Your task to perform on an android device: View the shopping cart on walmart. Add usb-a to usb-b to the cart on walmart Image 0: 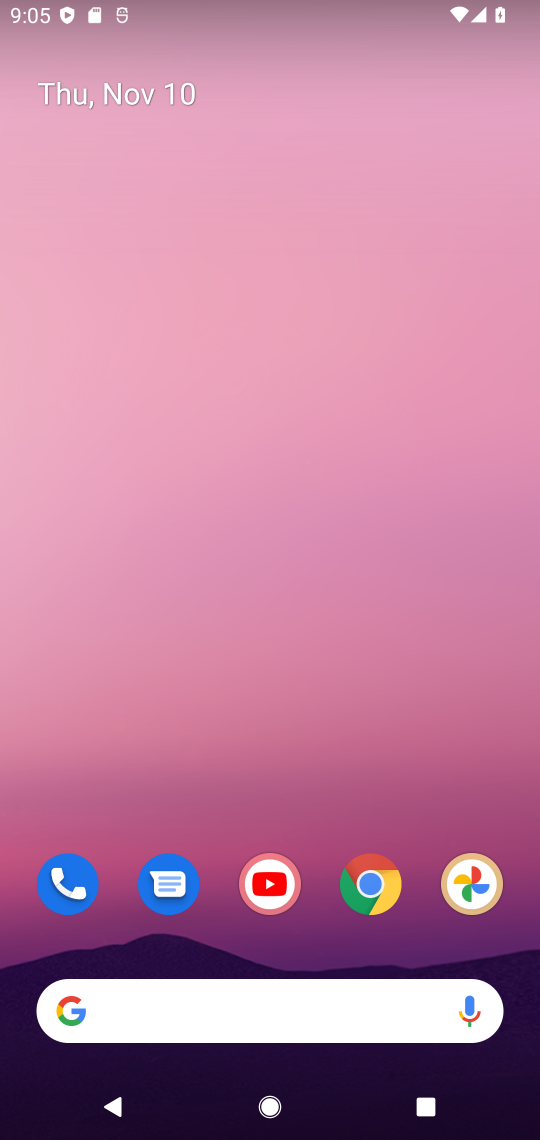
Step 0: drag from (250, 872) to (319, 112)
Your task to perform on an android device: View the shopping cart on walmart. Add usb-a to usb-b to the cart on walmart Image 1: 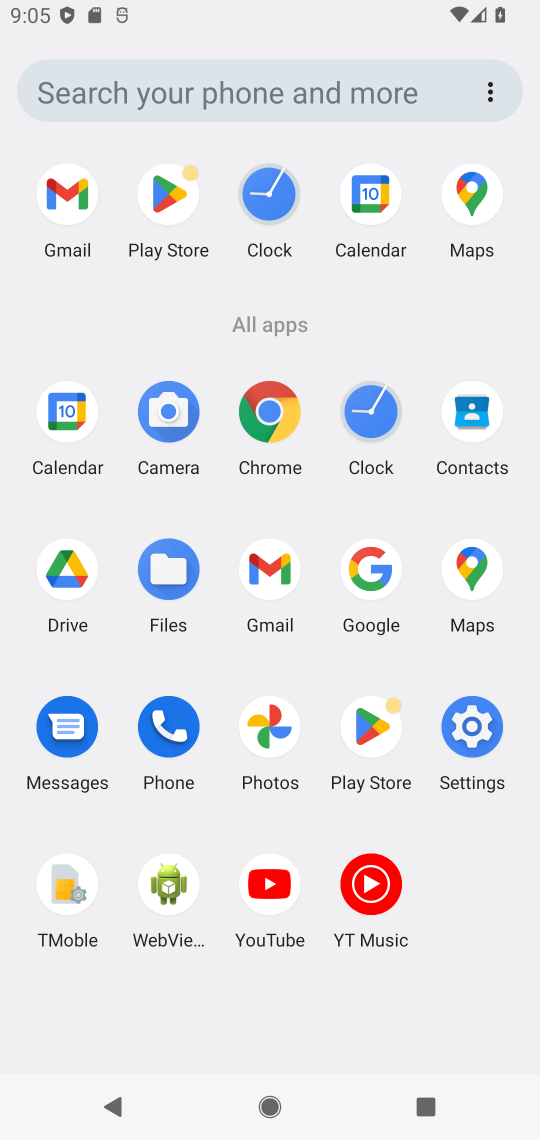
Step 1: click (360, 578)
Your task to perform on an android device: View the shopping cart on walmart. Add usb-a to usb-b to the cart on walmart Image 2: 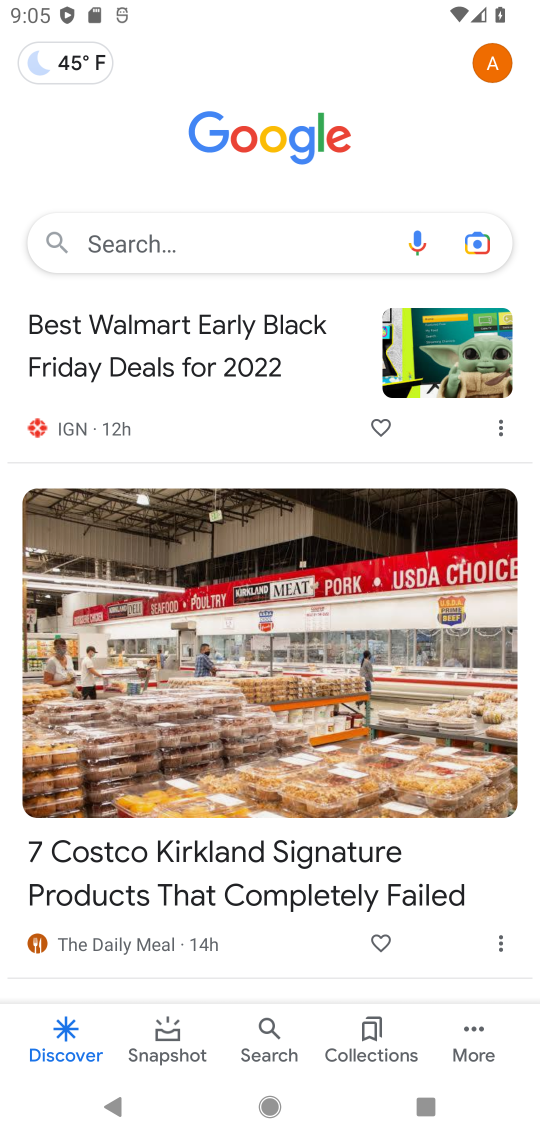
Step 2: click (360, 578)
Your task to perform on an android device: View the shopping cart on walmart. Add usb-a to usb-b to the cart on walmart Image 3: 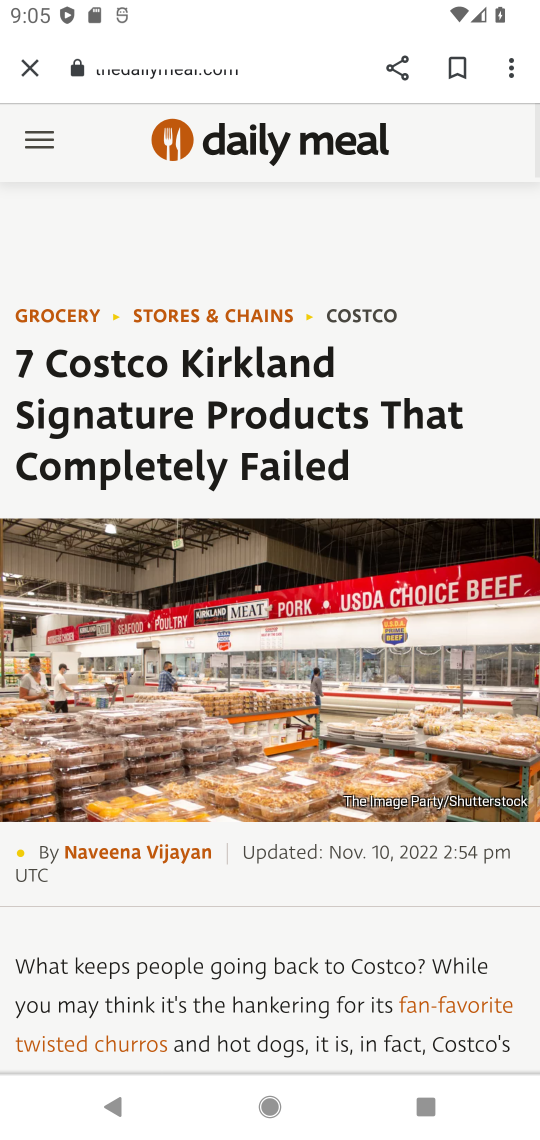
Step 3: click (249, 234)
Your task to perform on an android device: View the shopping cart on walmart. Add usb-a to usb-b to the cart on walmart Image 4: 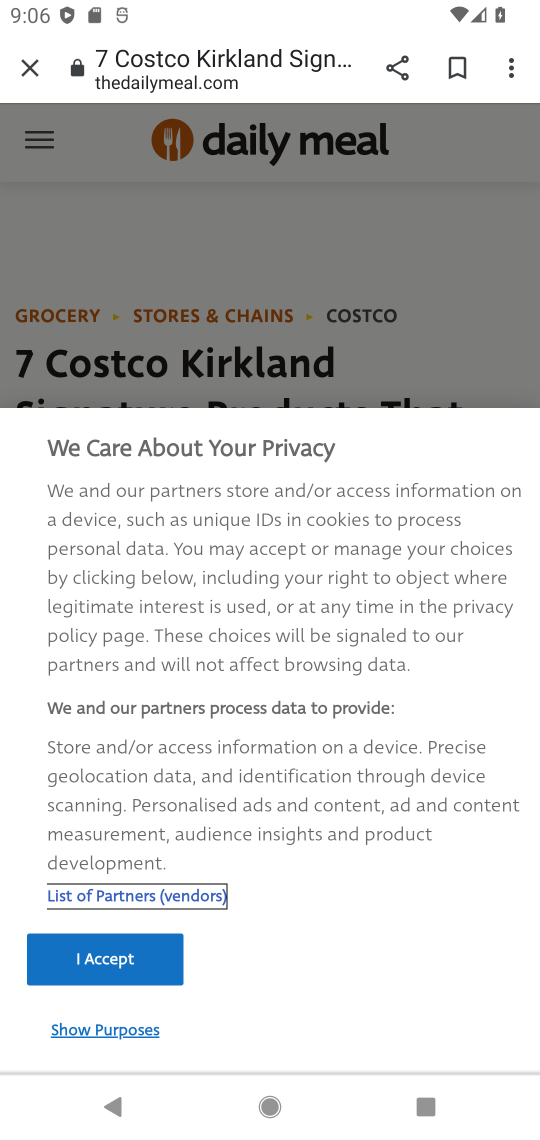
Step 4: press home button
Your task to perform on an android device: View the shopping cart on walmart. Add usb-a to usb-b to the cart on walmart Image 5: 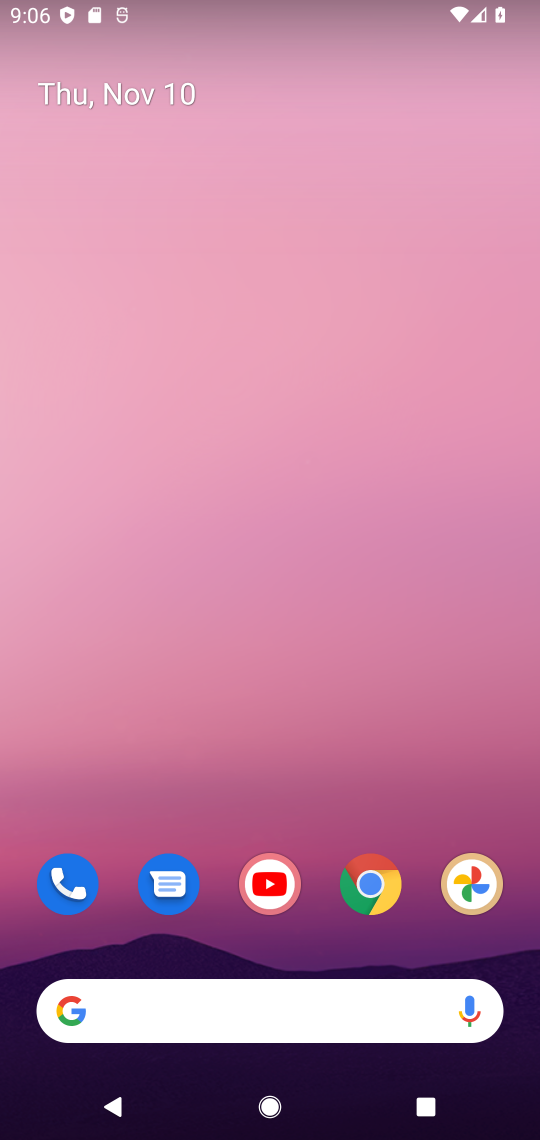
Step 5: click (242, 995)
Your task to perform on an android device: View the shopping cart on walmart. Add usb-a to usb-b to the cart on walmart Image 6: 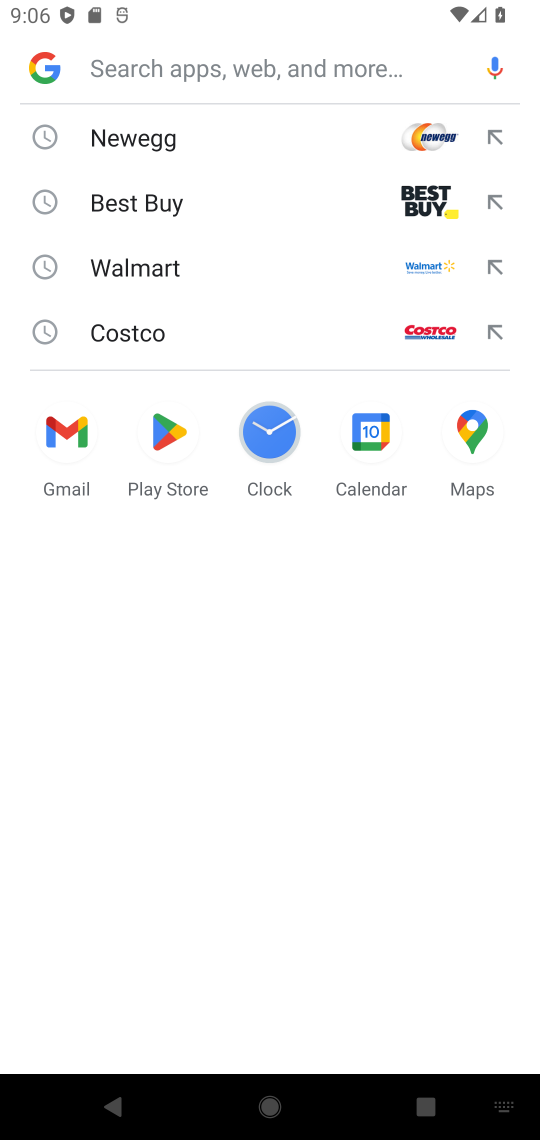
Step 6: click (165, 277)
Your task to perform on an android device: View the shopping cart on walmart. Add usb-a to usb-b to the cart on walmart Image 7: 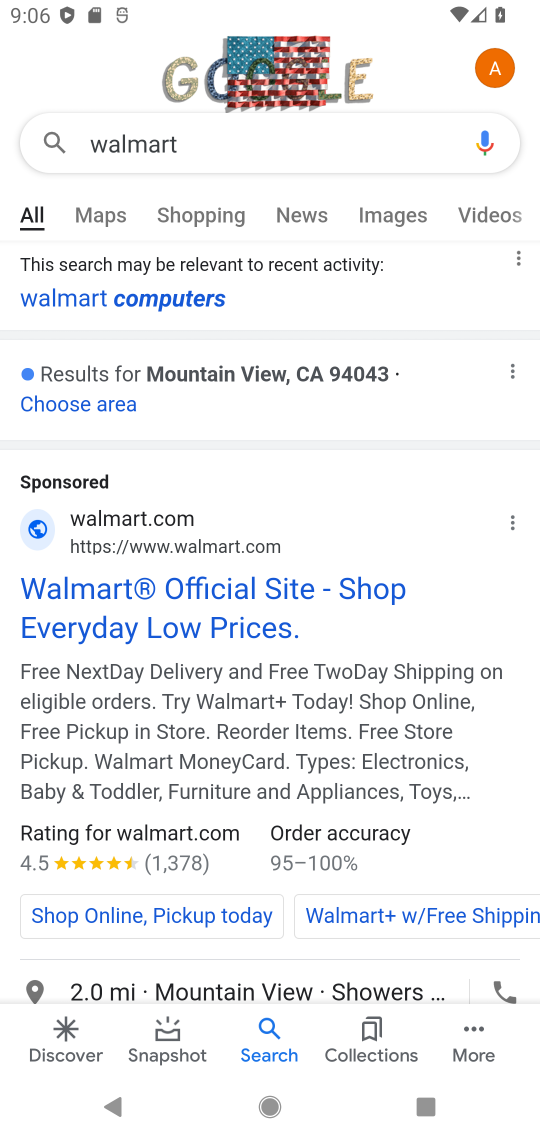
Step 7: click (91, 628)
Your task to perform on an android device: View the shopping cart on walmart. Add usb-a to usb-b to the cart on walmart Image 8: 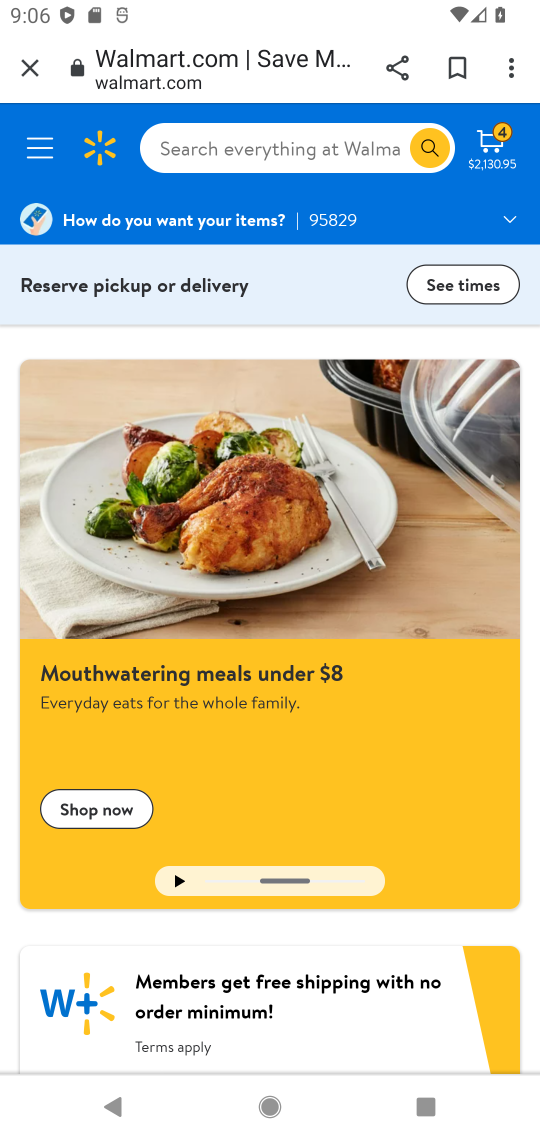
Step 8: click (261, 149)
Your task to perform on an android device: View the shopping cart on walmart. Add usb-a to usb-b to the cart on walmart Image 9: 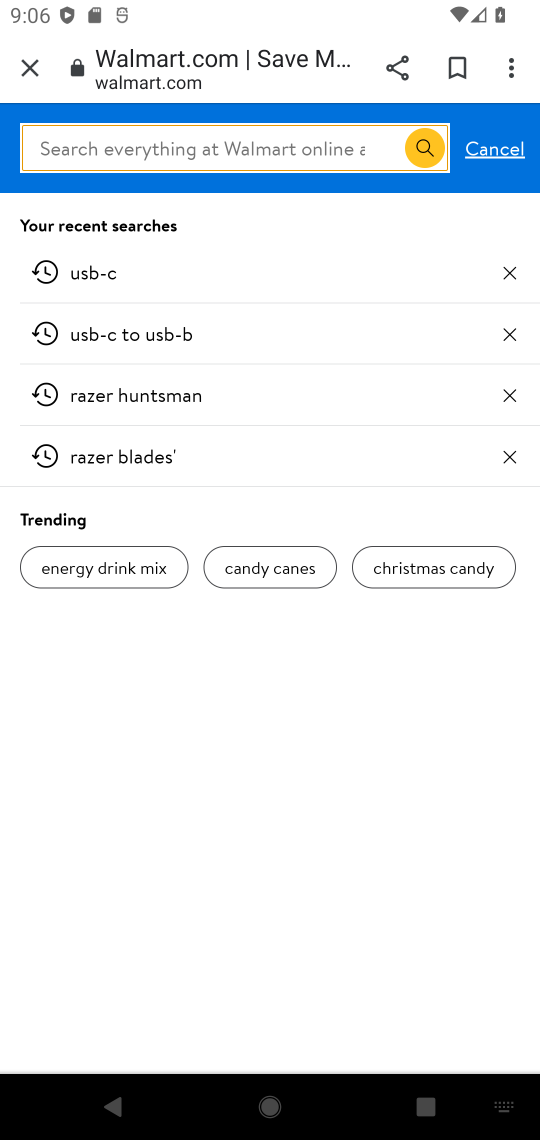
Step 9: type "usb-a to usb-b"
Your task to perform on an android device: View the shopping cart on walmart. Add usb-a to usb-b to the cart on walmart Image 10: 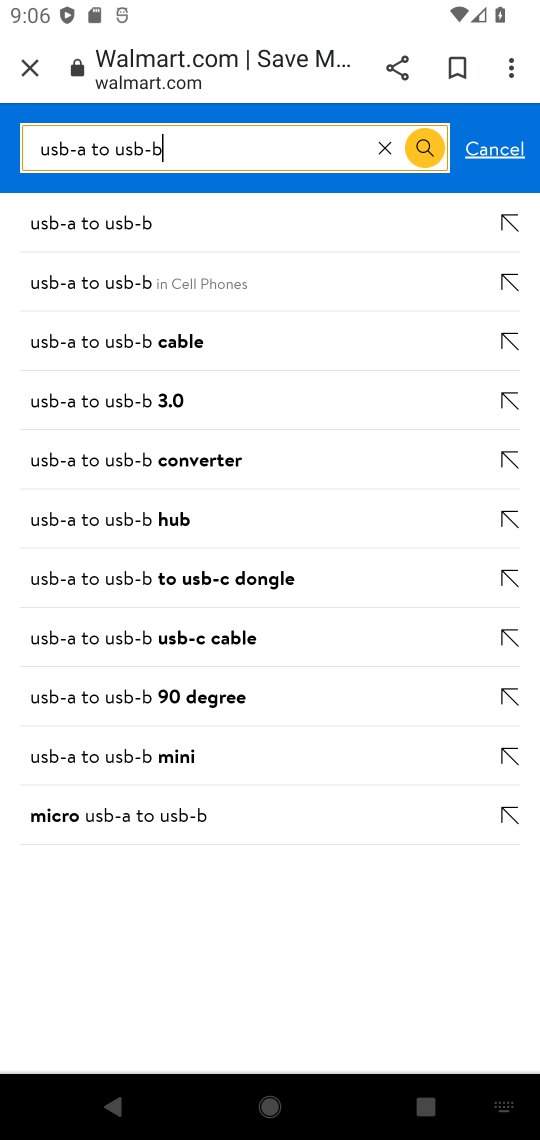
Step 10: click (117, 220)
Your task to perform on an android device: View the shopping cart on walmart. Add usb-a to usb-b to the cart on walmart Image 11: 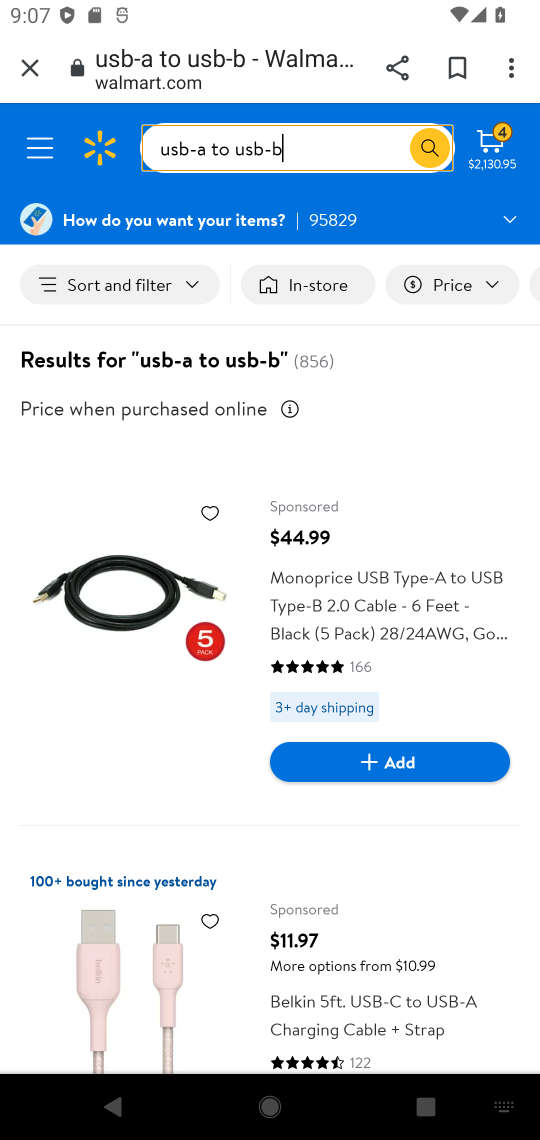
Step 11: click (377, 777)
Your task to perform on an android device: View the shopping cart on walmart. Add usb-a to usb-b to the cart on walmart Image 12: 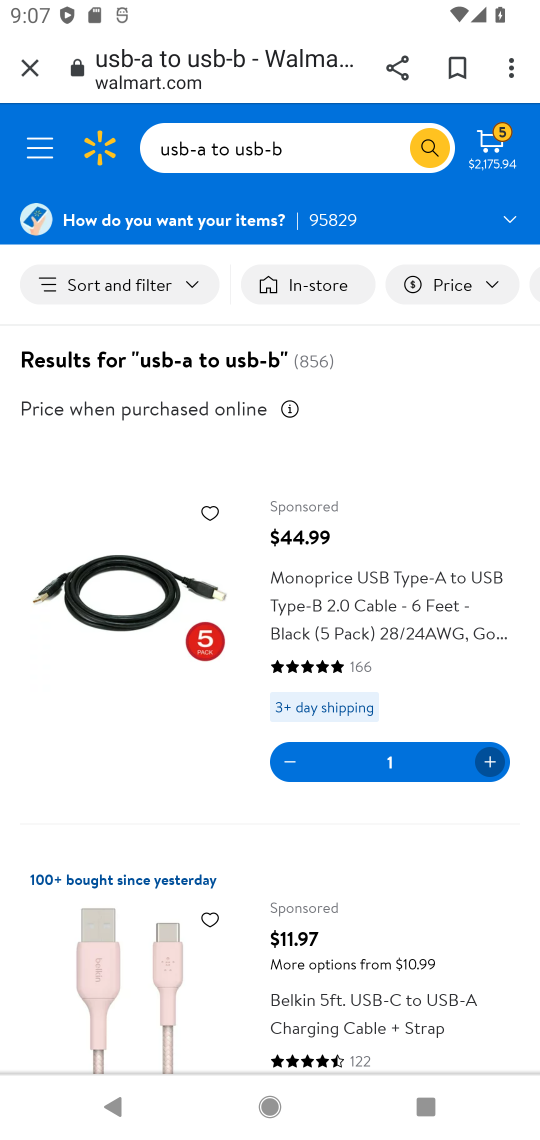
Step 12: click (482, 148)
Your task to perform on an android device: View the shopping cart on walmart. Add usb-a to usb-b to the cart on walmart Image 13: 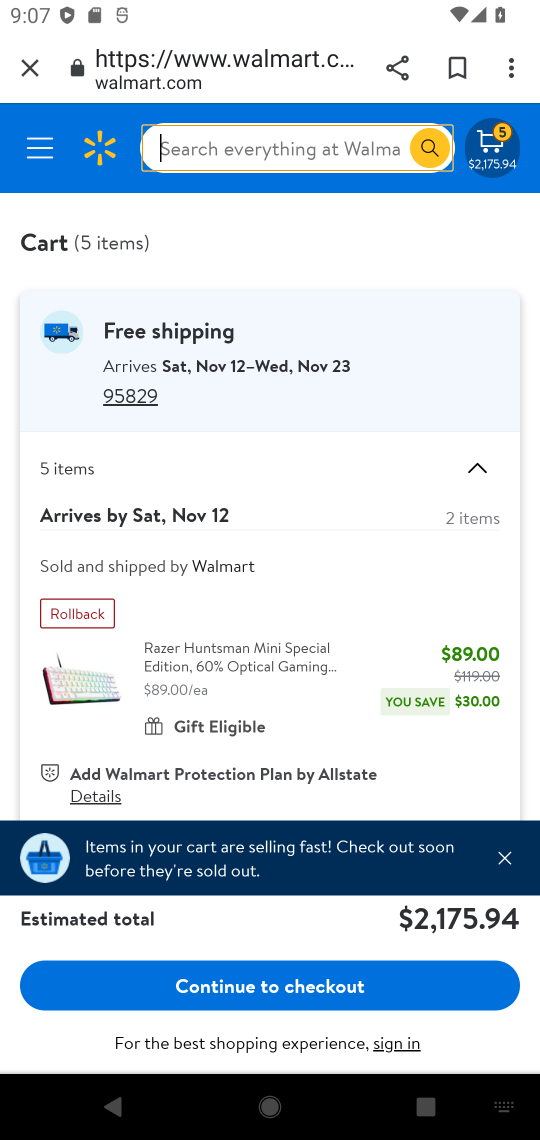
Step 13: drag from (312, 685) to (300, 547)
Your task to perform on an android device: View the shopping cart on walmart. Add usb-a to usb-b to the cart on walmart Image 14: 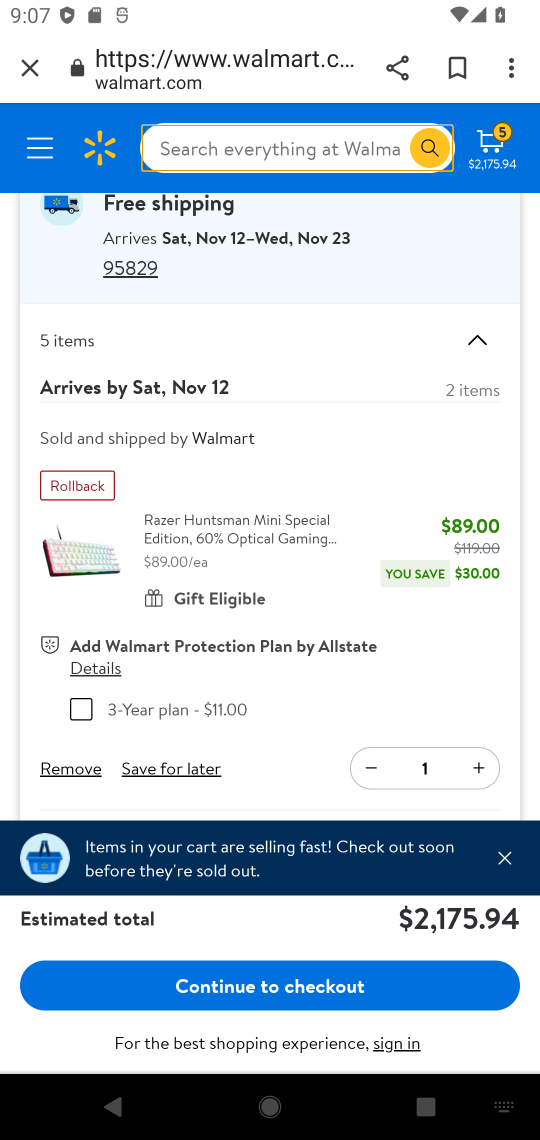
Step 14: click (510, 854)
Your task to perform on an android device: View the shopping cart on walmart. Add usb-a to usb-b to the cart on walmart Image 15: 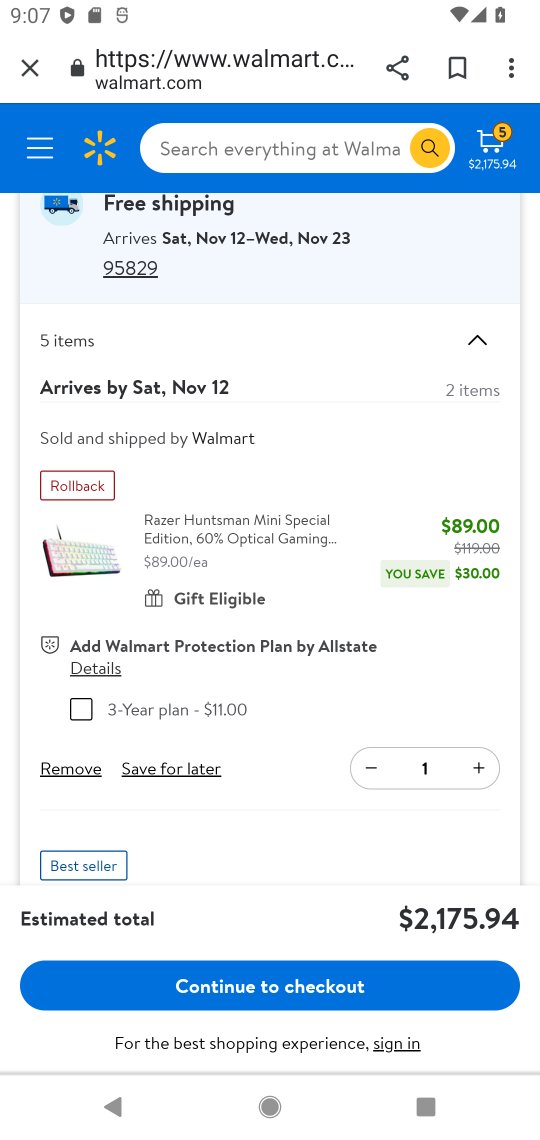
Step 15: task complete